Your task to perform on an android device: change the clock style Image 0: 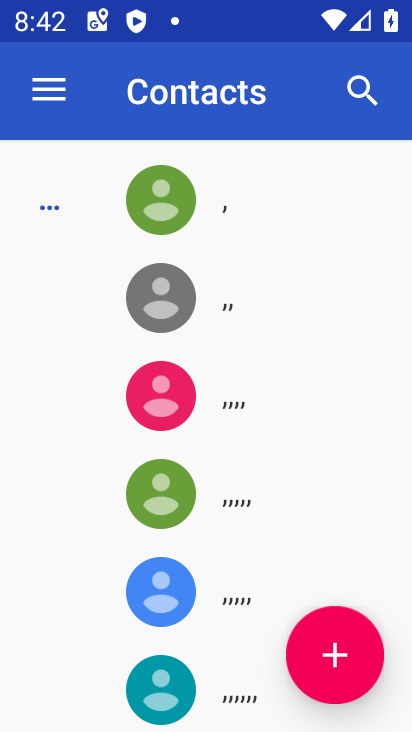
Step 0: press home button
Your task to perform on an android device: change the clock style Image 1: 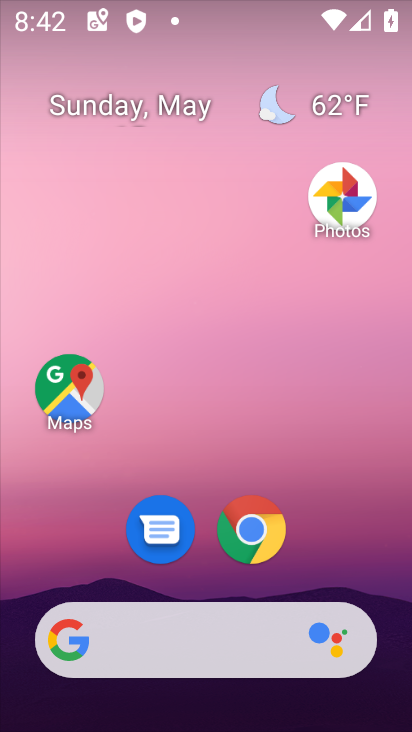
Step 1: drag from (393, 558) to (325, 83)
Your task to perform on an android device: change the clock style Image 2: 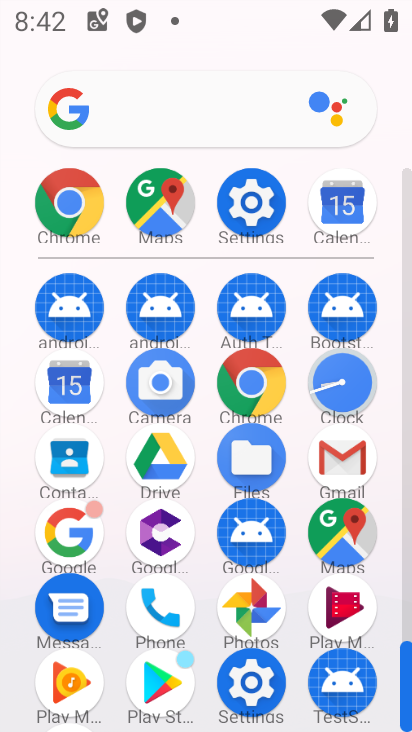
Step 2: click (349, 393)
Your task to perform on an android device: change the clock style Image 3: 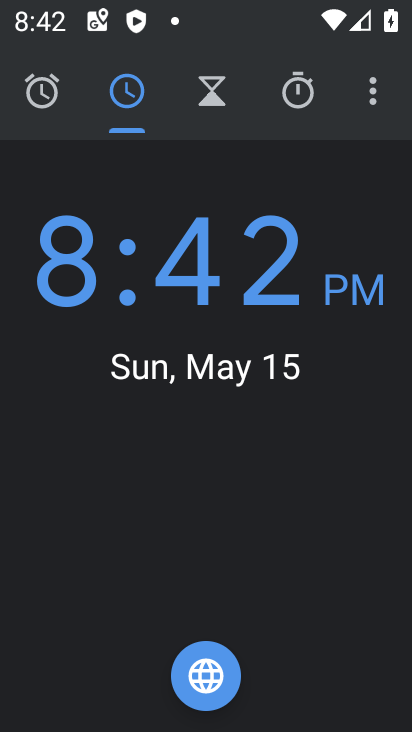
Step 3: click (379, 105)
Your task to perform on an android device: change the clock style Image 4: 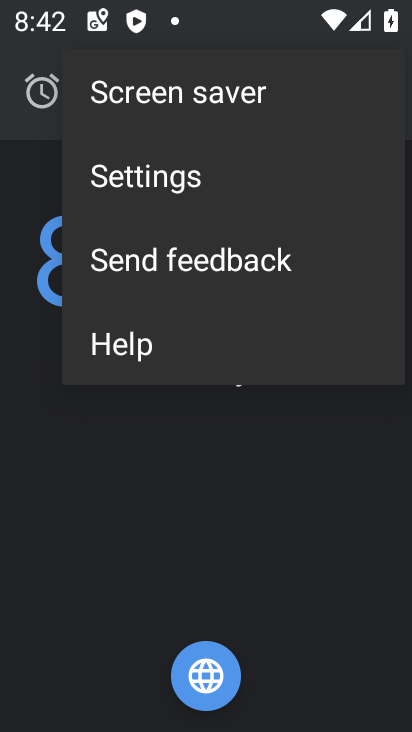
Step 4: click (268, 182)
Your task to perform on an android device: change the clock style Image 5: 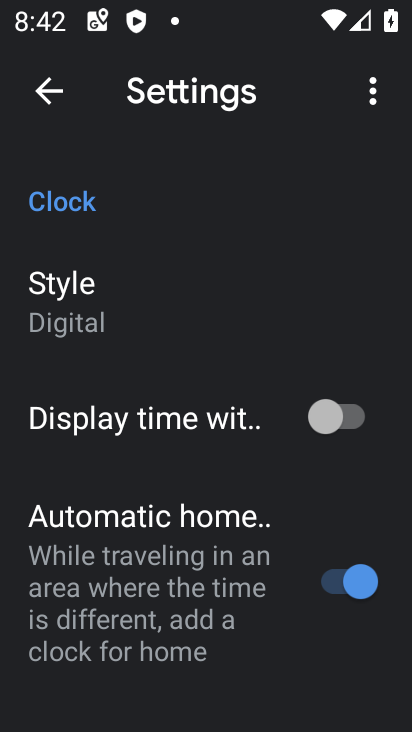
Step 5: click (68, 302)
Your task to perform on an android device: change the clock style Image 6: 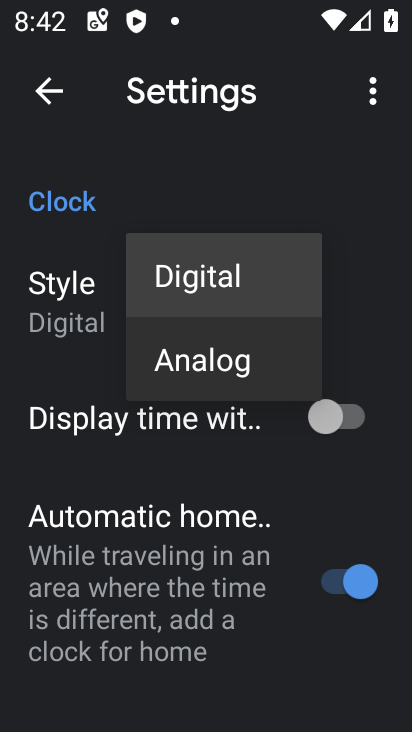
Step 6: click (238, 368)
Your task to perform on an android device: change the clock style Image 7: 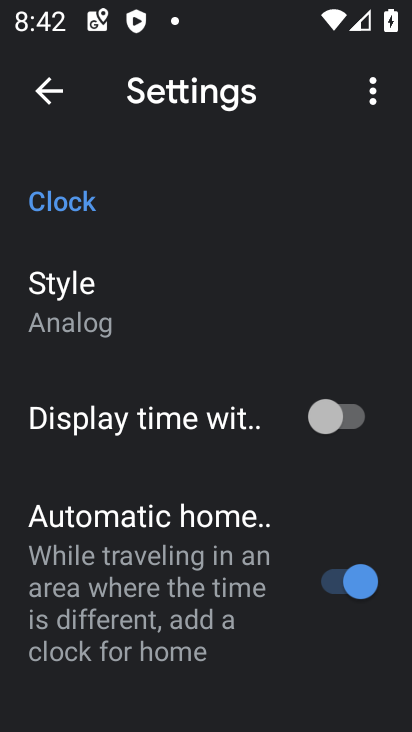
Step 7: task complete